Your task to perform on an android device: find which apps use the phone's location Image 0: 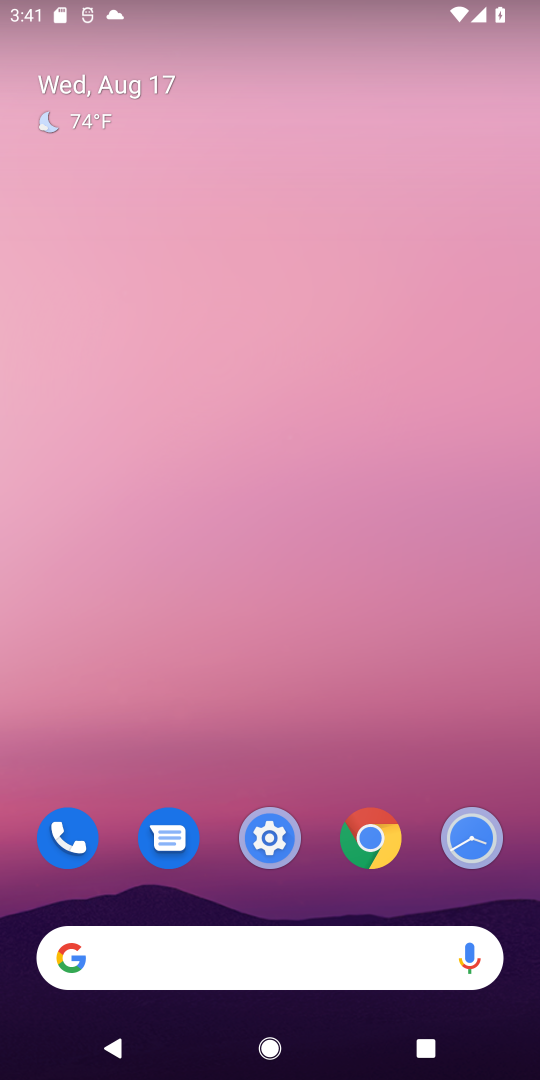
Step 0: click (251, 858)
Your task to perform on an android device: find which apps use the phone's location Image 1: 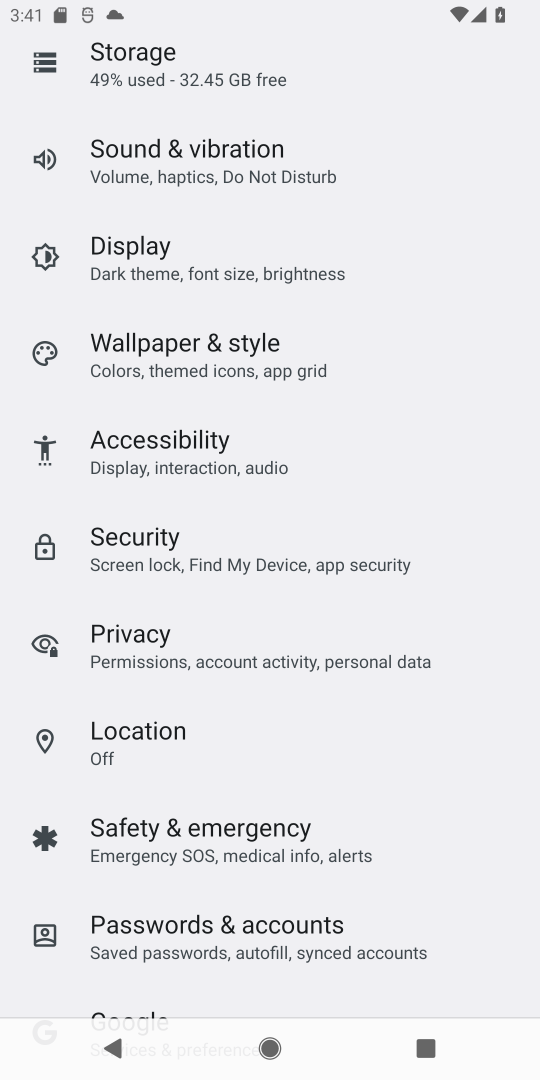
Step 1: click (142, 751)
Your task to perform on an android device: find which apps use the phone's location Image 2: 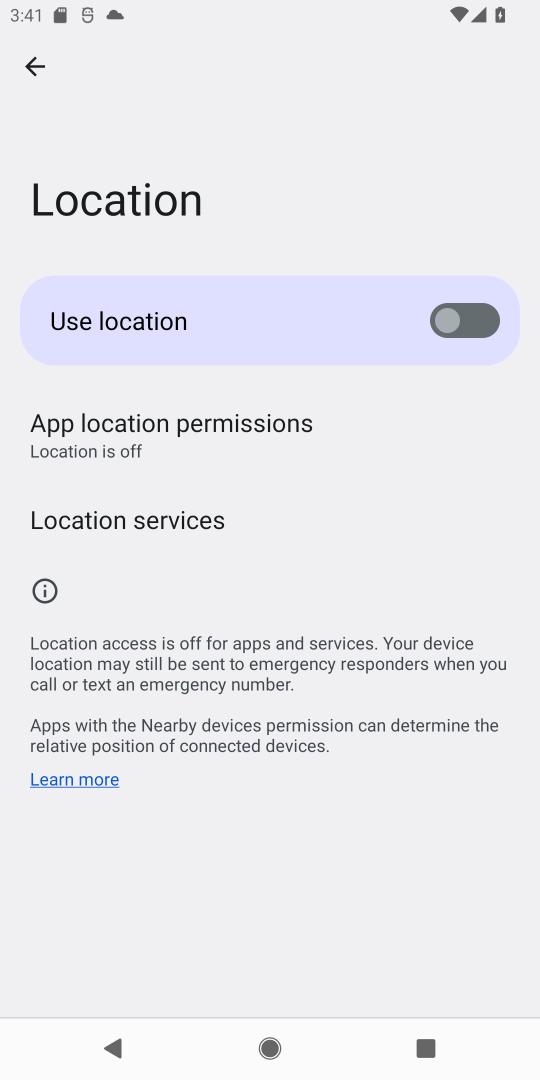
Step 2: click (97, 460)
Your task to perform on an android device: find which apps use the phone's location Image 3: 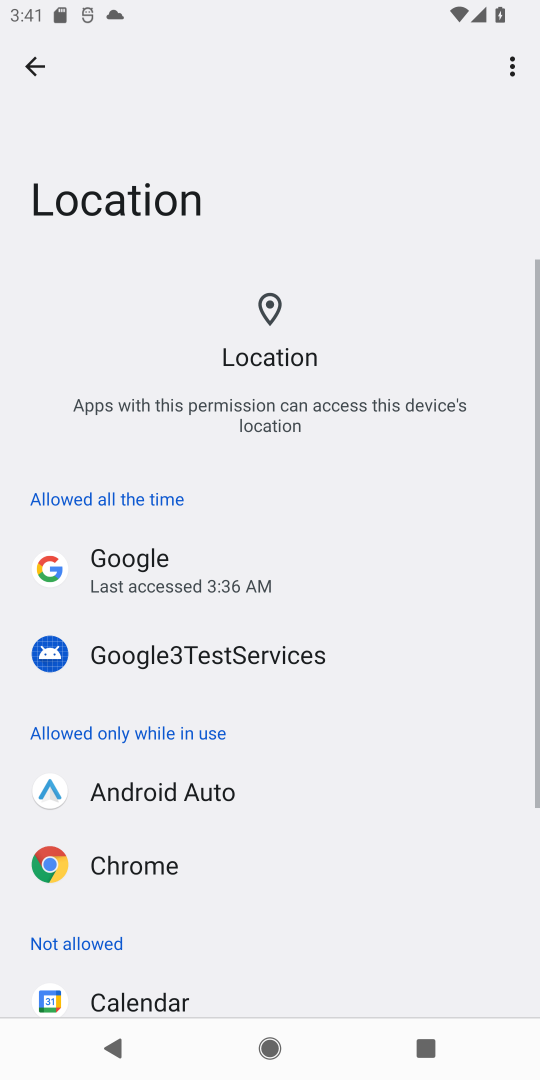
Step 3: task complete